Your task to perform on an android device: turn off wifi Image 0: 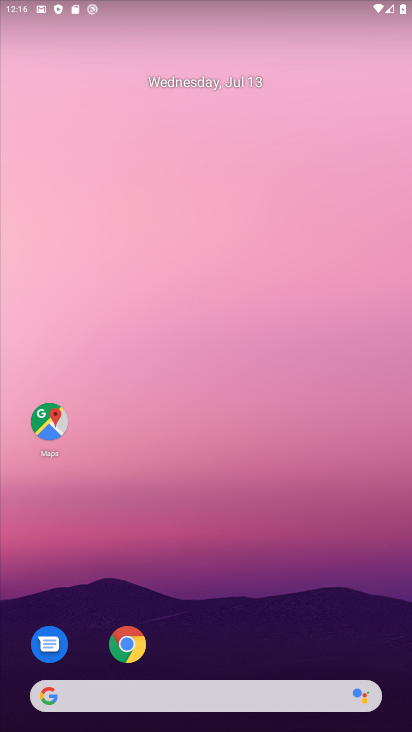
Step 0: drag from (184, 491) to (168, 89)
Your task to perform on an android device: turn off wifi Image 1: 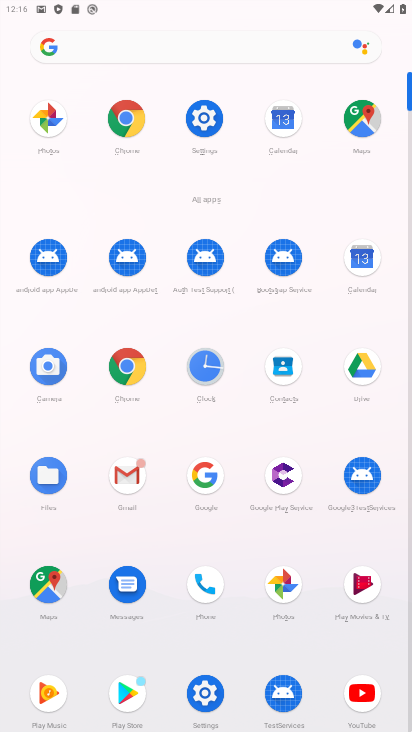
Step 1: click (200, 130)
Your task to perform on an android device: turn off wifi Image 2: 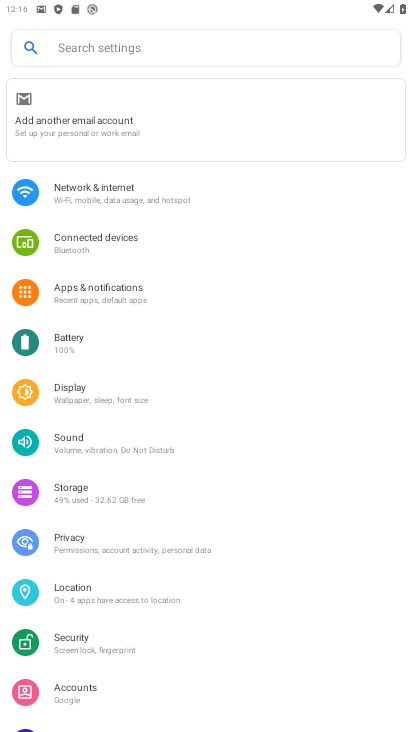
Step 2: click (83, 192)
Your task to perform on an android device: turn off wifi Image 3: 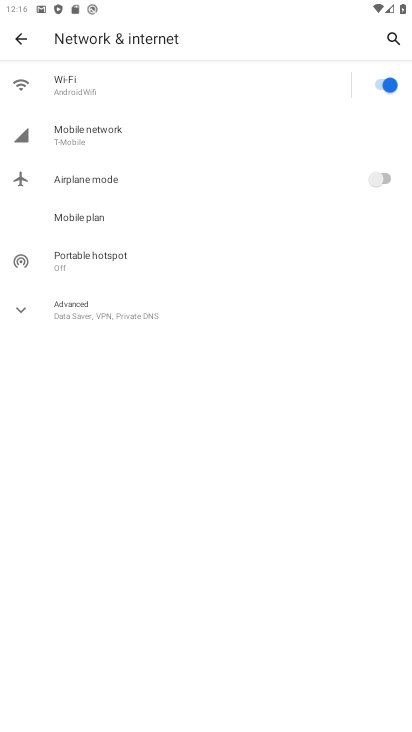
Step 3: click (374, 89)
Your task to perform on an android device: turn off wifi Image 4: 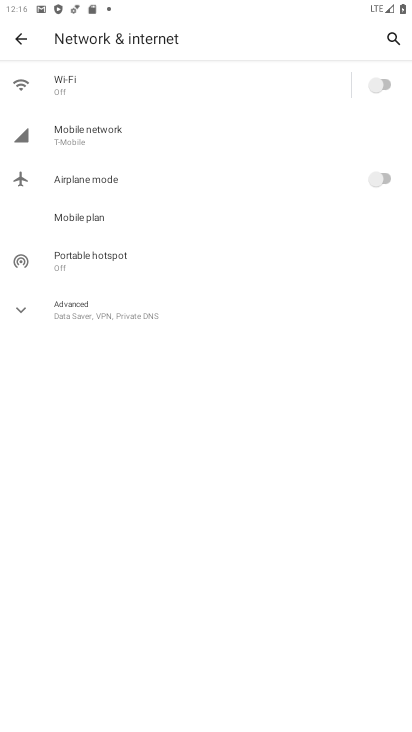
Step 4: task complete